Your task to perform on an android device: toggle sleep mode Image 0: 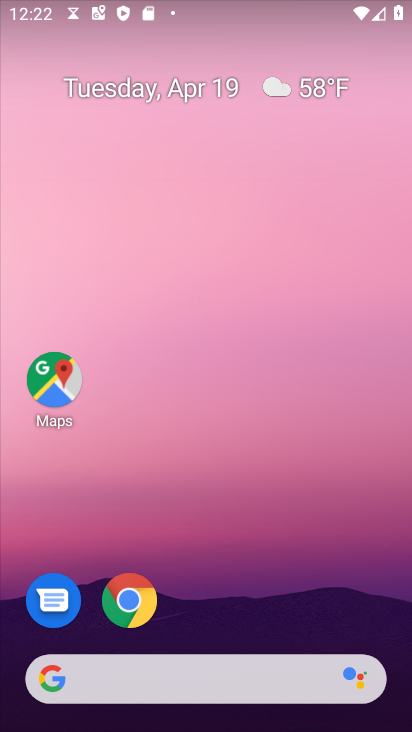
Step 0: drag from (223, 280) to (181, 91)
Your task to perform on an android device: toggle sleep mode Image 1: 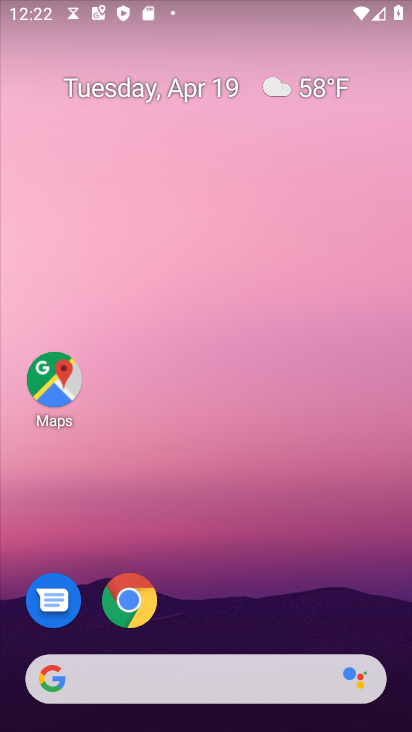
Step 1: drag from (205, 429) to (163, 32)
Your task to perform on an android device: toggle sleep mode Image 2: 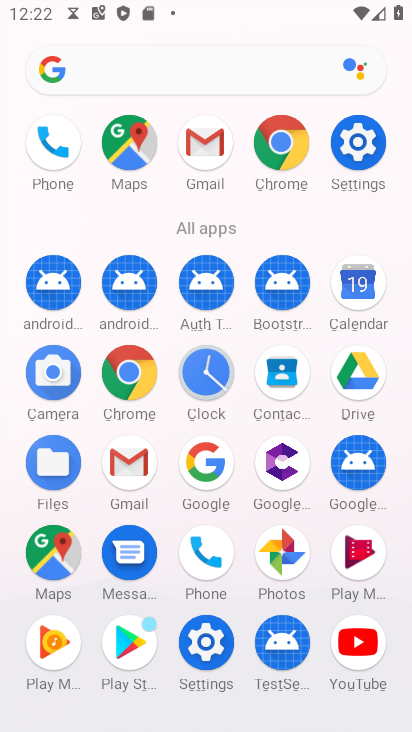
Step 2: click (358, 151)
Your task to perform on an android device: toggle sleep mode Image 3: 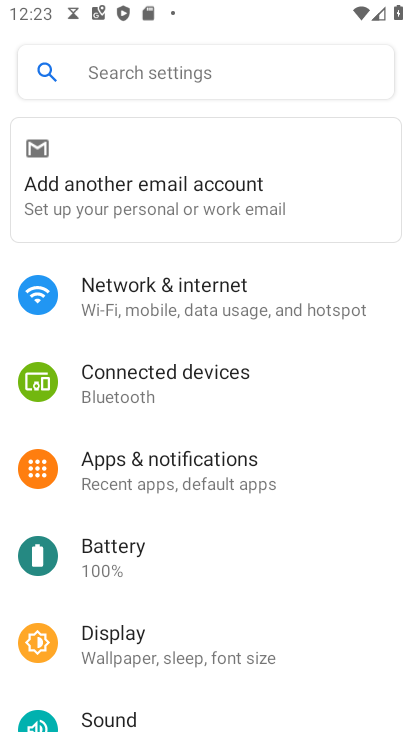
Step 3: click (151, 619)
Your task to perform on an android device: toggle sleep mode Image 4: 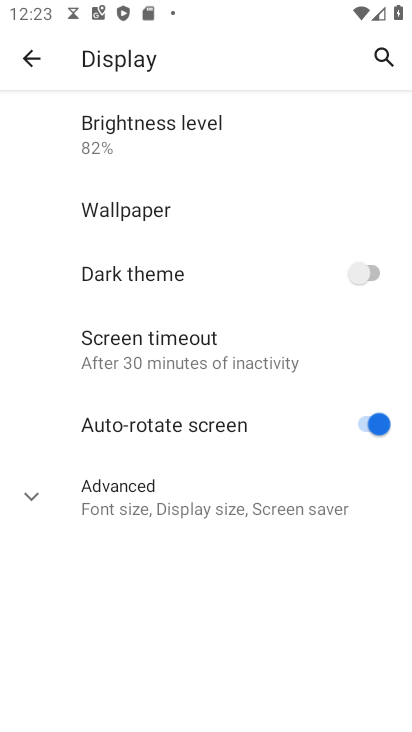
Step 4: click (180, 492)
Your task to perform on an android device: toggle sleep mode Image 5: 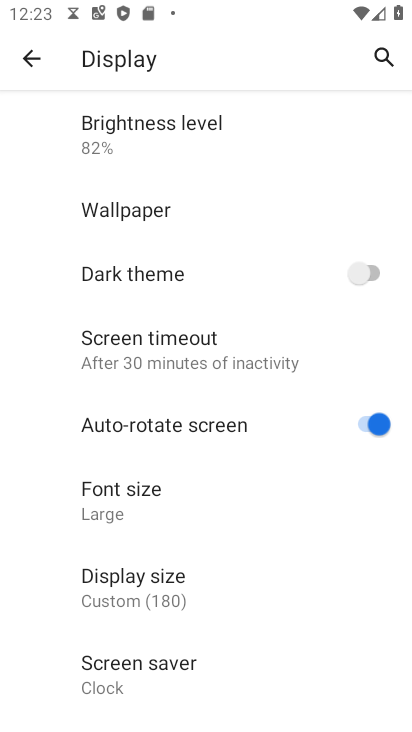
Step 5: task complete